Your task to perform on an android device: change notification settings in the gmail app Image 0: 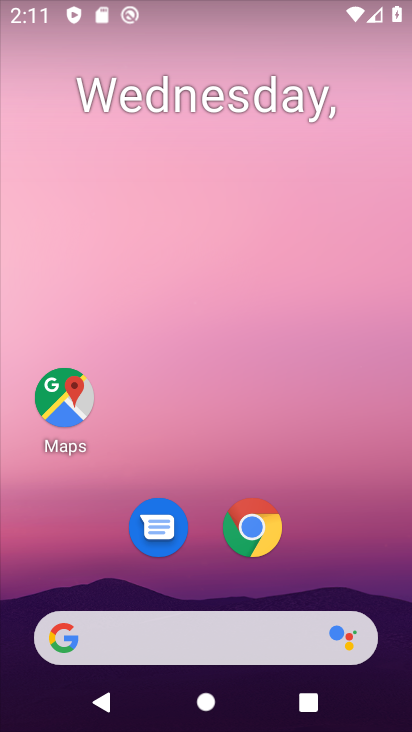
Step 0: drag from (316, 567) to (318, 275)
Your task to perform on an android device: change notification settings in the gmail app Image 1: 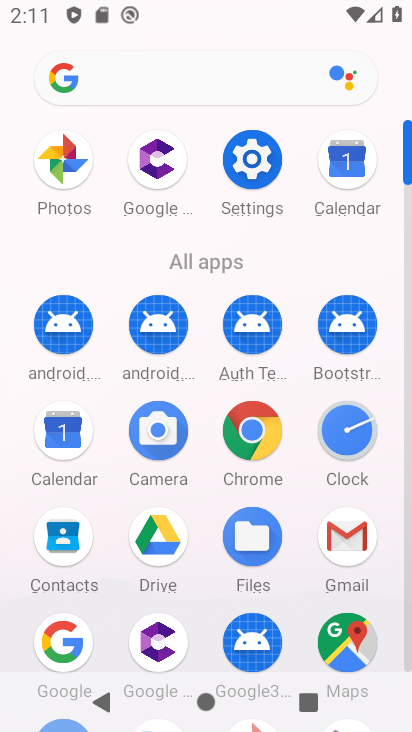
Step 1: click (346, 536)
Your task to perform on an android device: change notification settings in the gmail app Image 2: 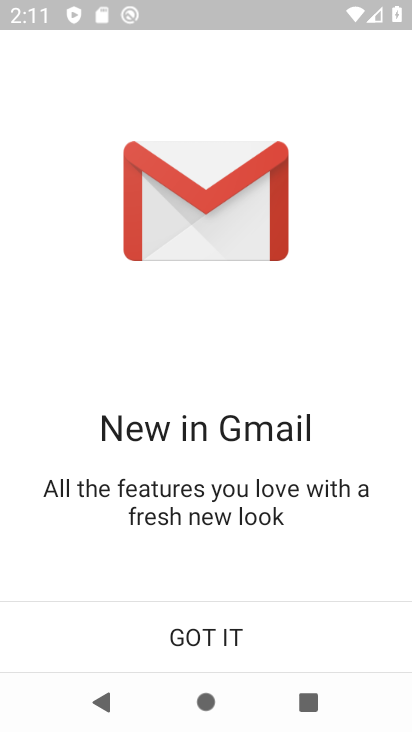
Step 2: click (212, 627)
Your task to perform on an android device: change notification settings in the gmail app Image 3: 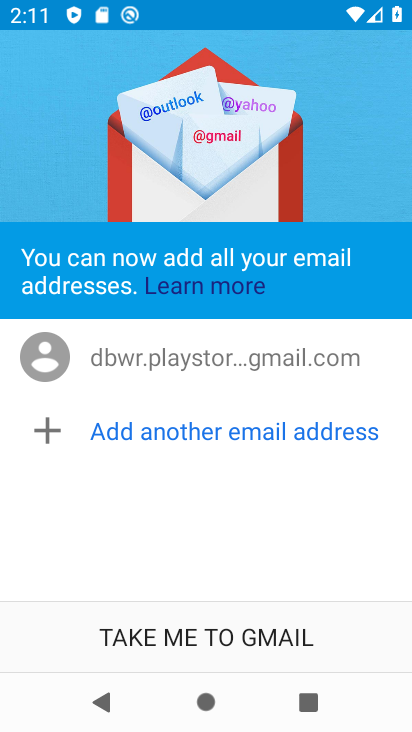
Step 3: click (212, 627)
Your task to perform on an android device: change notification settings in the gmail app Image 4: 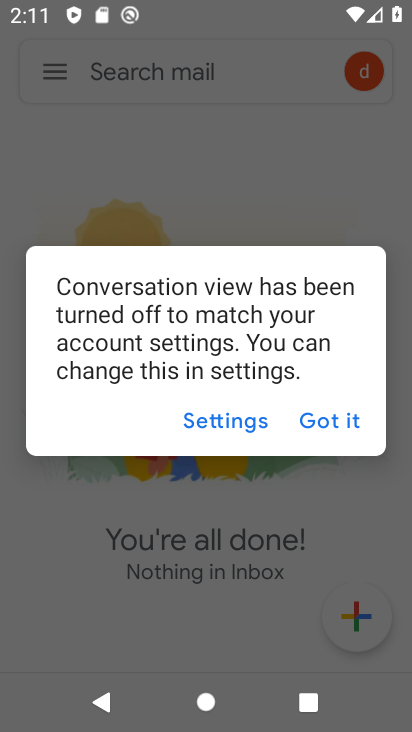
Step 4: click (334, 421)
Your task to perform on an android device: change notification settings in the gmail app Image 5: 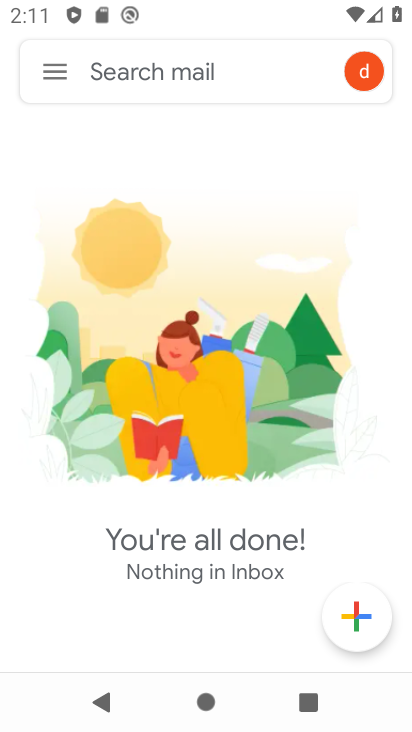
Step 5: click (60, 72)
Your task to perform on an android device: change notification settings in the gmail app Image 6: 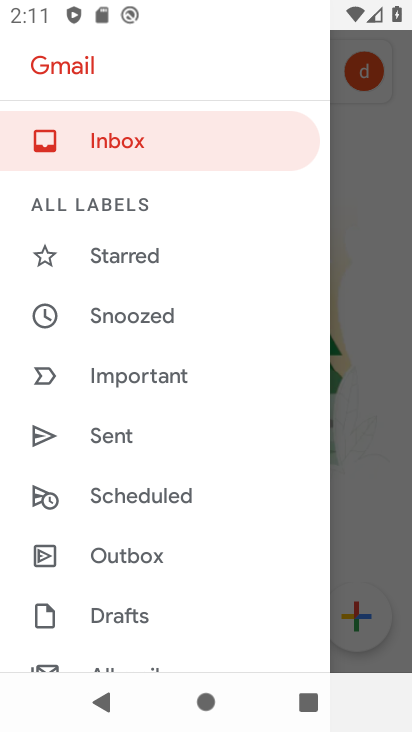
Step 6: drag from (137, 409) to (155, 314)
Your task to perform on an android device: change notification settings in the gmail app Image 7: 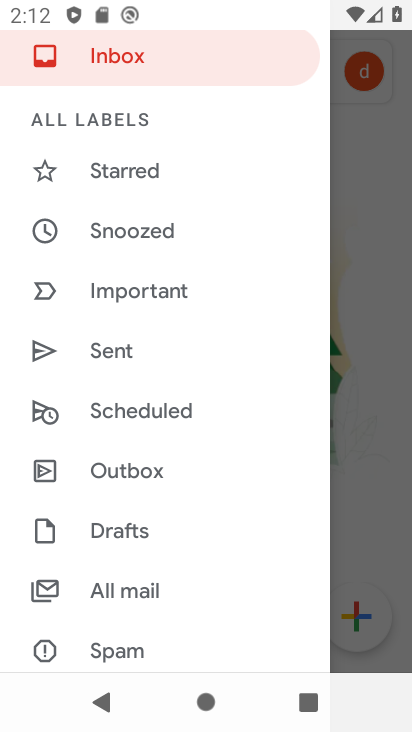
Step 7: drag from (117, 433) to (127, 325)
Your task to perform on an android device: change notification settings in the gmail app Image 8: 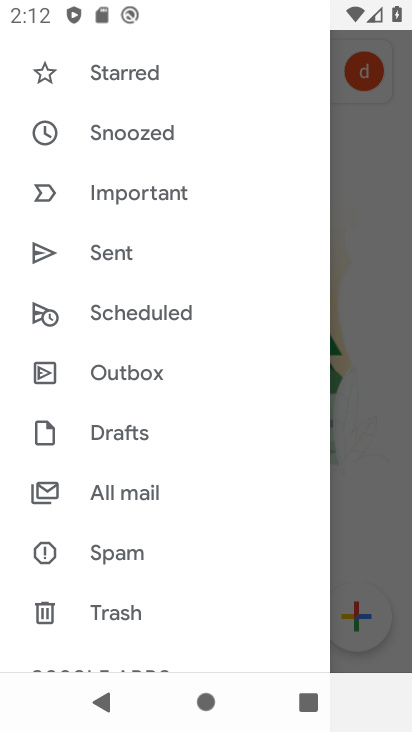
Step 8: drag from (116, 524) to (128, 410)
Your task to perform on an android device: change notification settings in the gmail app Image 9: 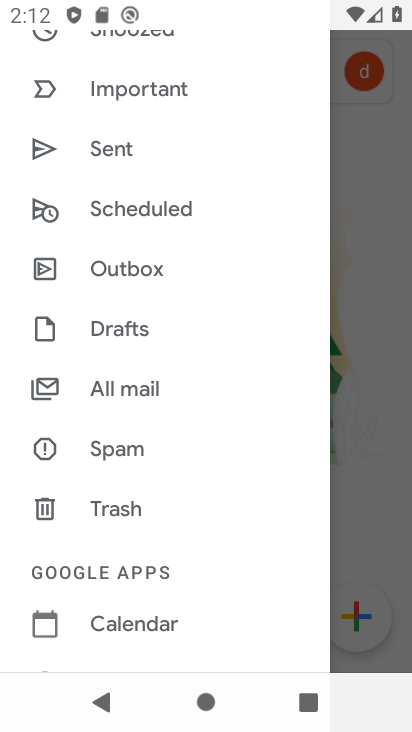
Step 9: drag from (115, 479) to (97, 321)
Your task to perform on an android device: change notification settings in the gmail app Image 10: 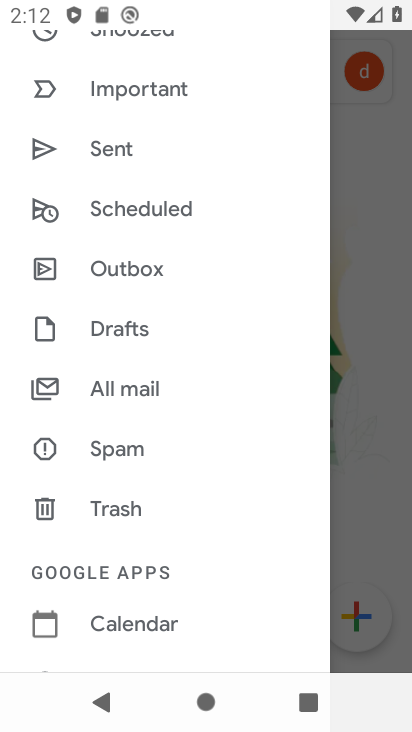
Step 10: drag from (117, 540) to (138, 398)
Your task to perform on an android device: change notification settings in the gmail app Image 11: 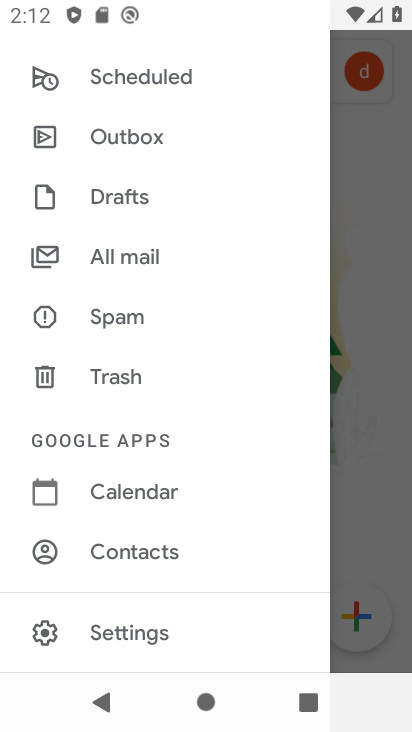
Step 11: click (145, 633)
Your task to perform on an android device: change notification settings in the gmail app Image 12: 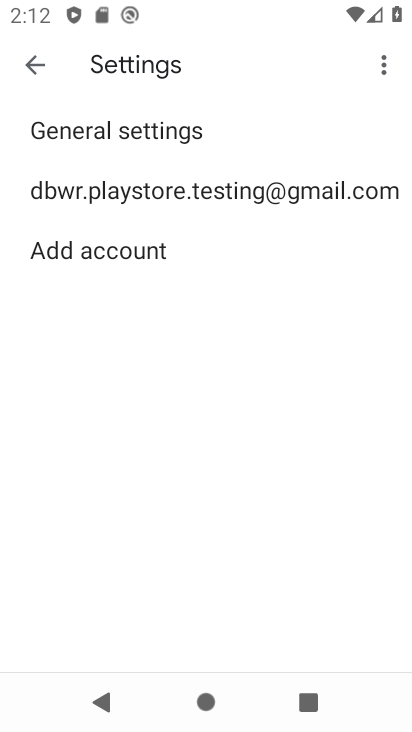
Step 12: click (242, 195)
Your task to perform on an android device: change notification settings in the gmail app Image 13: 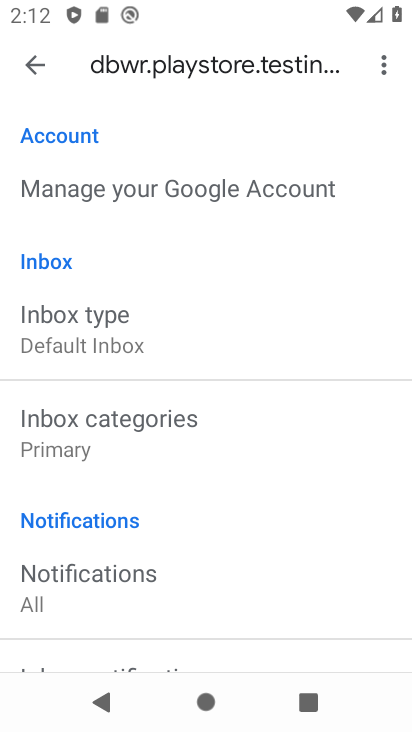
Step 13: drag from (200, 501) to (227, 299)
Your task to perform on an android device: change notification settings in the gmail app Image 14: 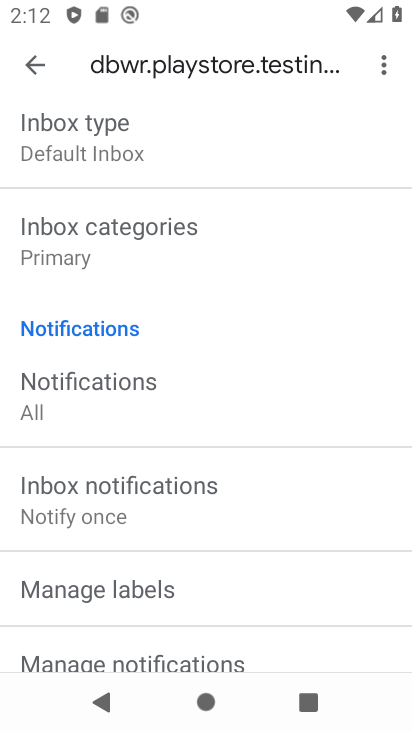
Step 14: drag from (197, 520) to (225, 392)
Your task to perform on an android device: change notification settings in the gmail app Image 15: 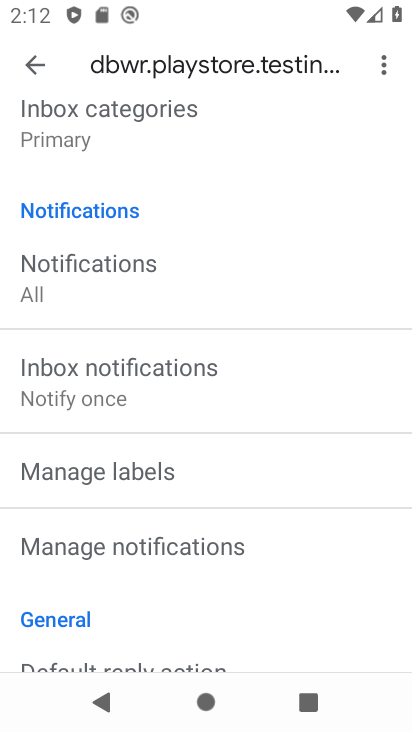
Step 15: click (203, 551)
Your task to perform on an android device: change notification settings in the gmail app Image 16: 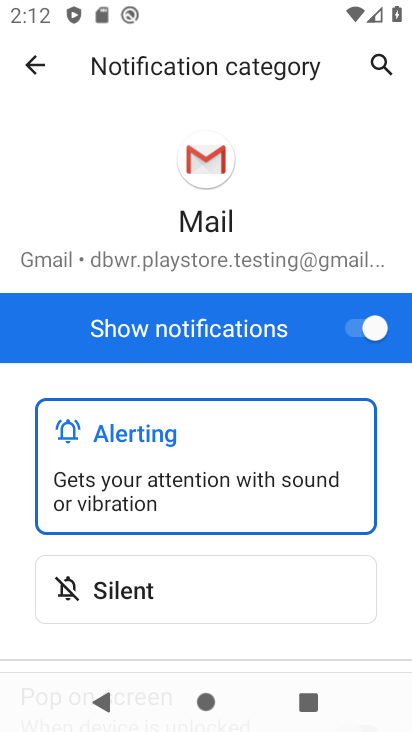
Step 16: click (353, 328)
Your task to perform on an android device: change notification settings in the gmail app Image 17: 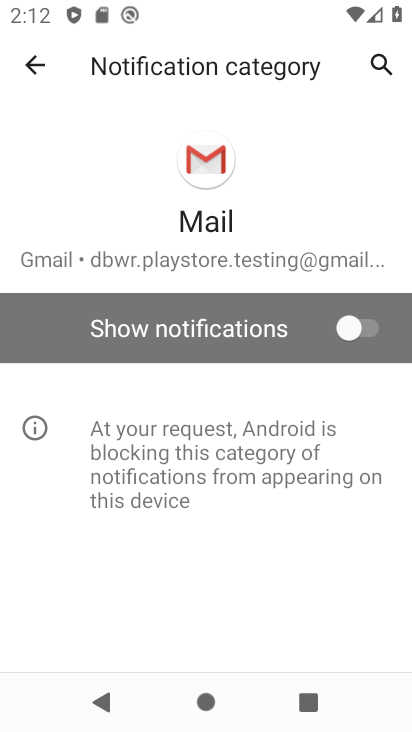
Step 17: task complete